Your task to perform on an android device: Go to CNN.com Image 0: 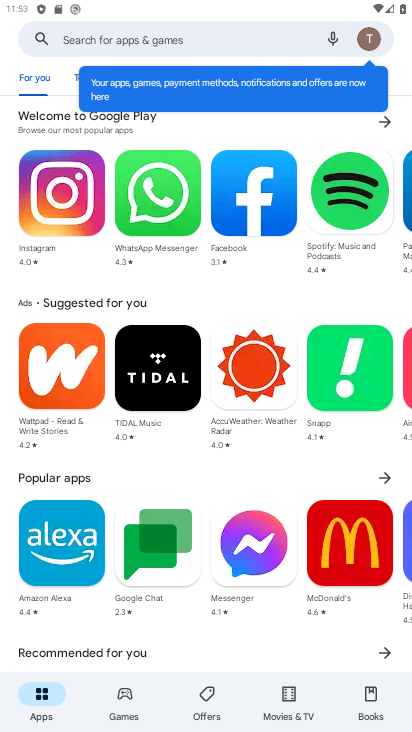
Step 0: press home button
Your task to perform on an android device: Go to CNN.com Image 1: 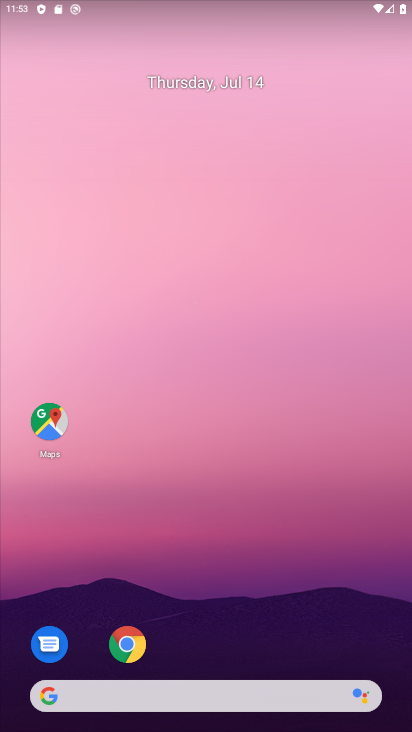
Step 1: click (133, 648)
Your task to perform on an android device: Go to CNN.com Image 2: 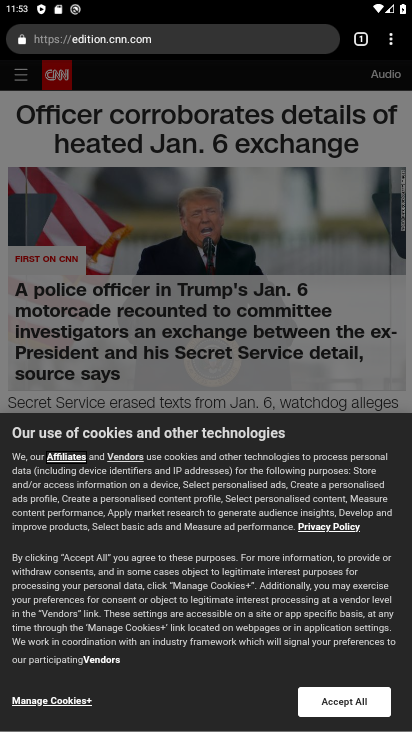
Step 2: task complete